Your task to perform on an android device: turn on priority inbox in the gmail app Image 0: 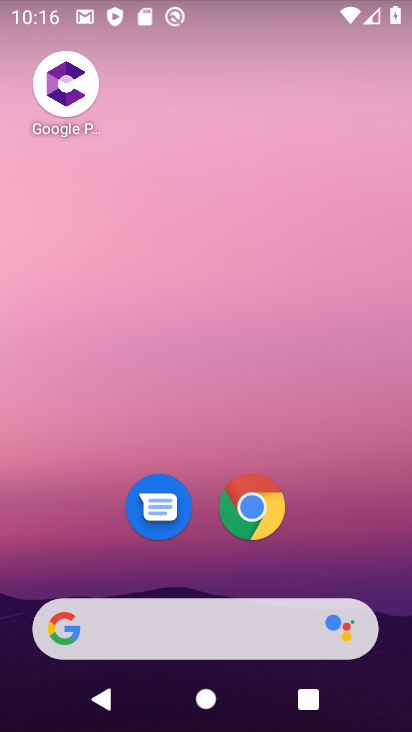
Step 0: drag from (234, 725) to (235, 141)
Your task to perform on an android device: turn on priority inbox in the gmail app Image 1: 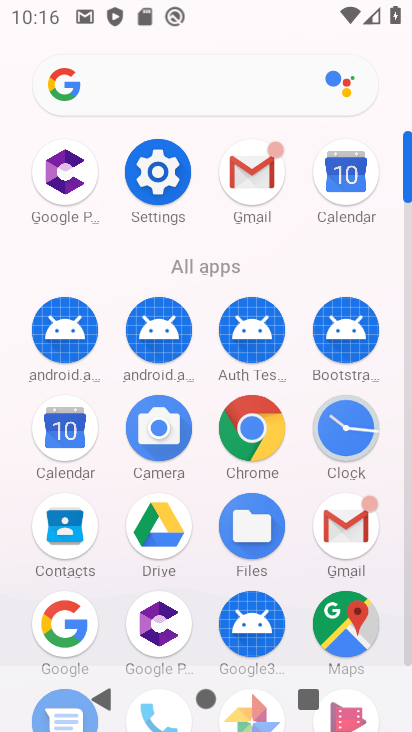
Step 1: click (249, 181)
Your task to perform on an android device: turn on priority inbox in the gmail app Image 2: 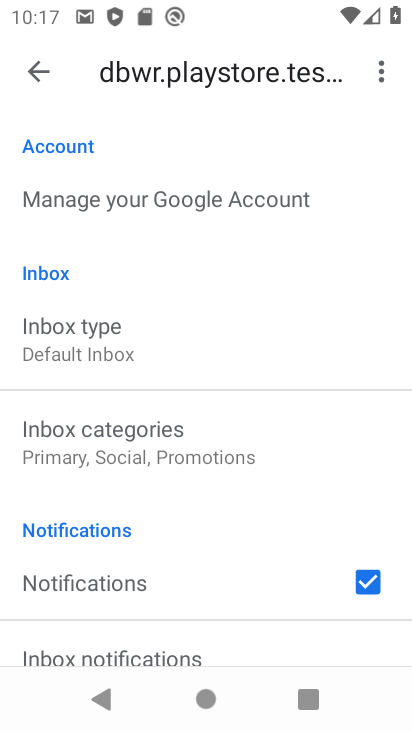
Step 2: click (80, 341)
Your task to perform on an android device: turn on priority inbox in the gmail app Image 3: 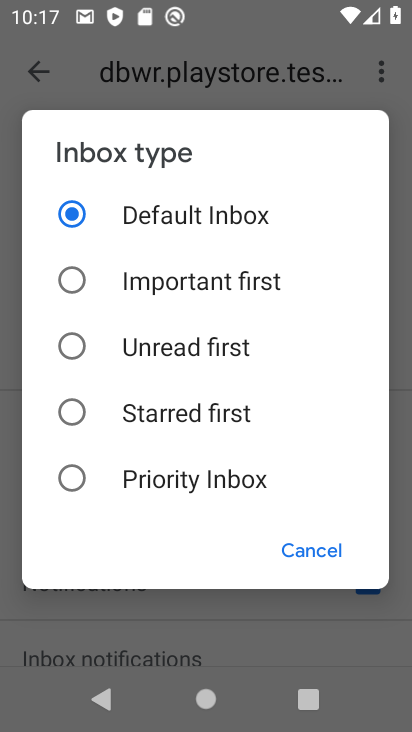
Step 3: click (68, 476)
Your task to perform on an android device: turn on priority inbox in the gmail app Image 4: 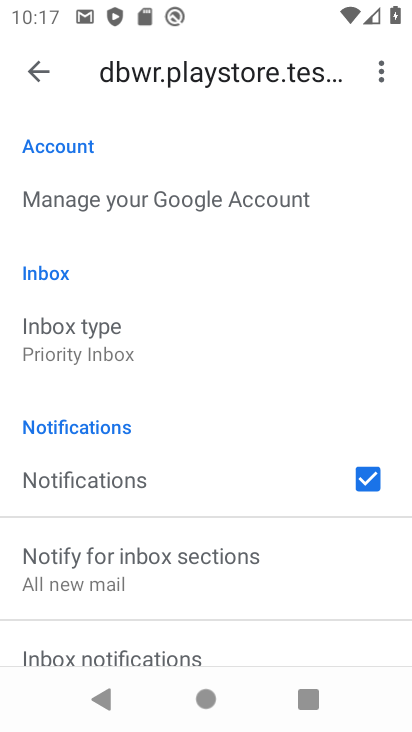
Step 4: task complete